Your task to perform on an android device: Open privacy settings Image 0: 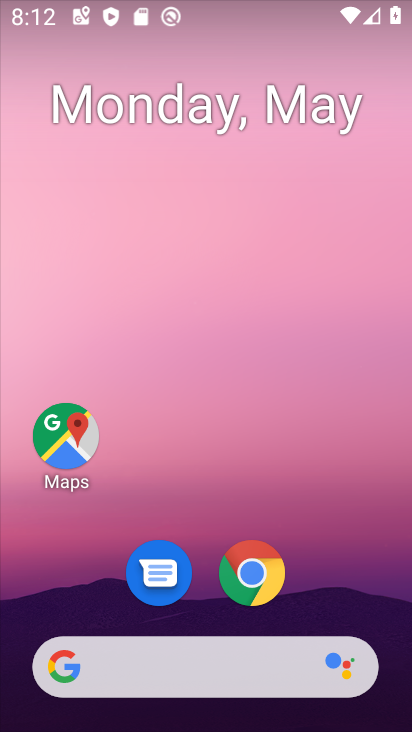
Step 0: drag from (322, 597) to (315, 27)
Your task to perform on an android device: Open privacy settings Image 1: 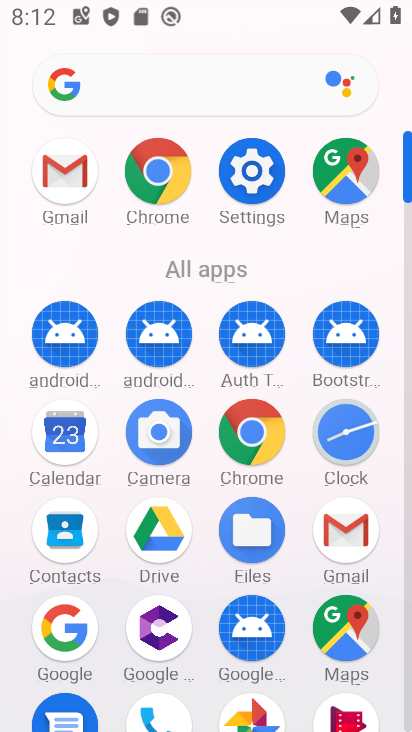
Step 1: click (261, 175)
Your task to perform on an android device: Open privacy settings Image 2: 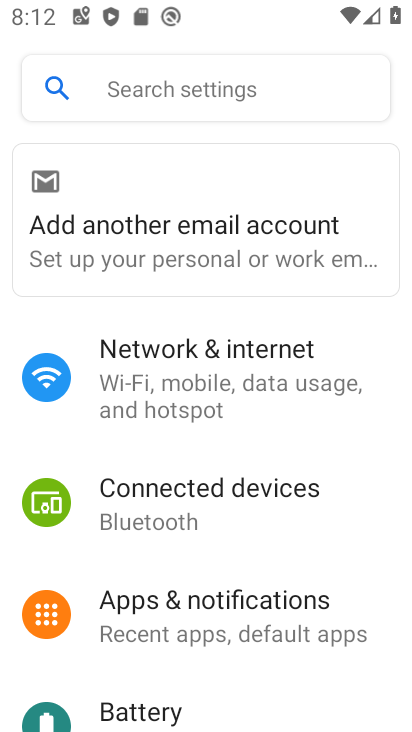
Step 2: drag from (252, 666) to (292, 260)
Your task to perform on an android device: Open privacy settings Image 3: 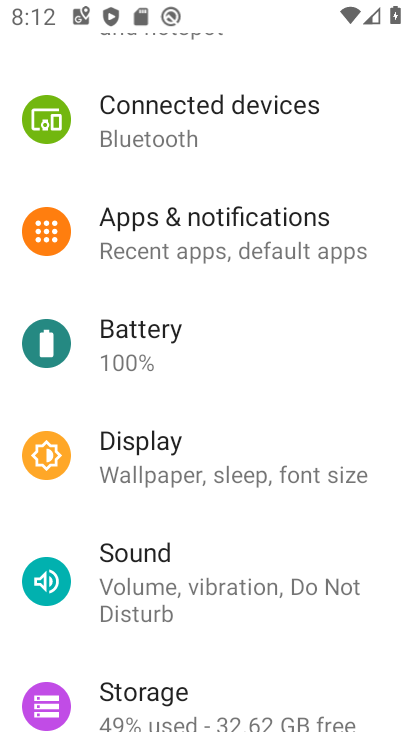
Step 3: drag from (200, 654) to (259, 109)
Your task to perform on an android device: Open privacy settings Image 4: 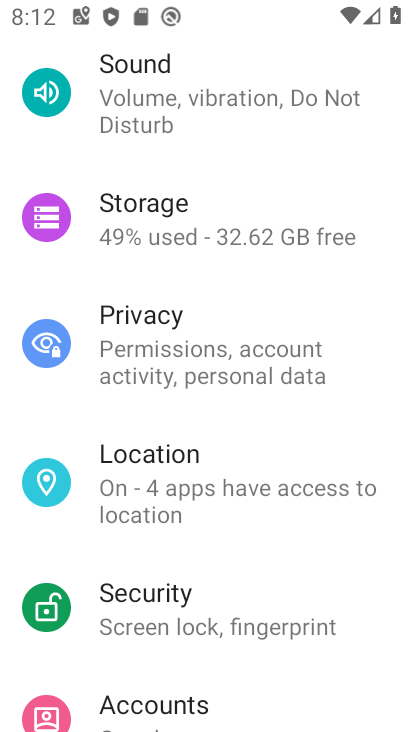
Step 4: click (250, 349)
Your task to perform on an android device: Open privacy settings Image 5: 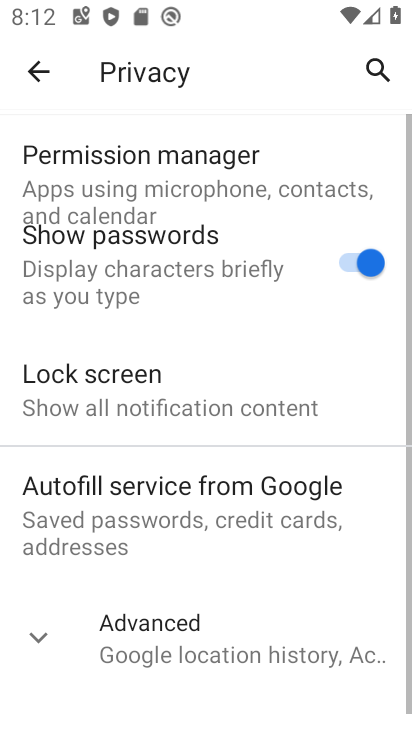
Step 5: task complete